Your task to perform on an android device: What's on my calendar today? Image 0: 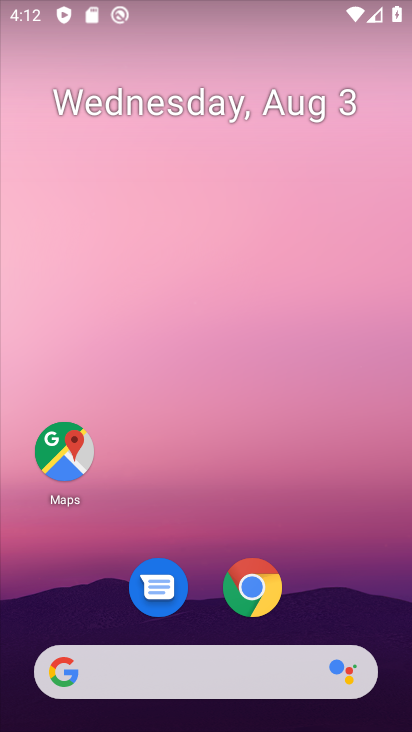
Step 0: drag from (69, 661) to (245, 151)
Your task to perform on an android device: What's on my calendar today? Image 1: 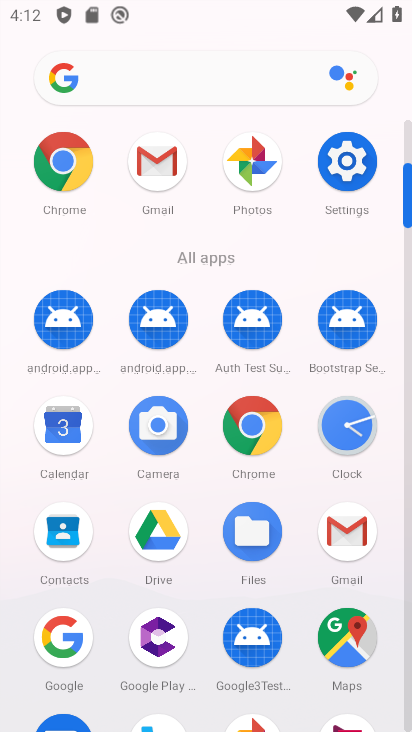
Step 1: click (69, 435)
Your task to perform on an android device: What's on my calendar today? Image 2: 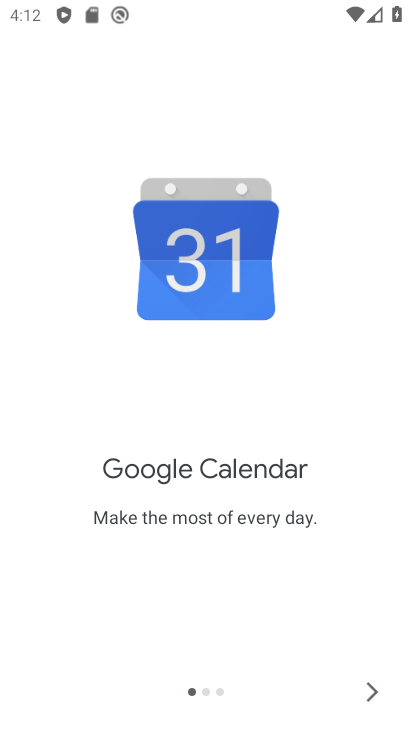
Step 2: click (376, 689)
Your task to perform on an android device: What's on my calendar today? Image 3: 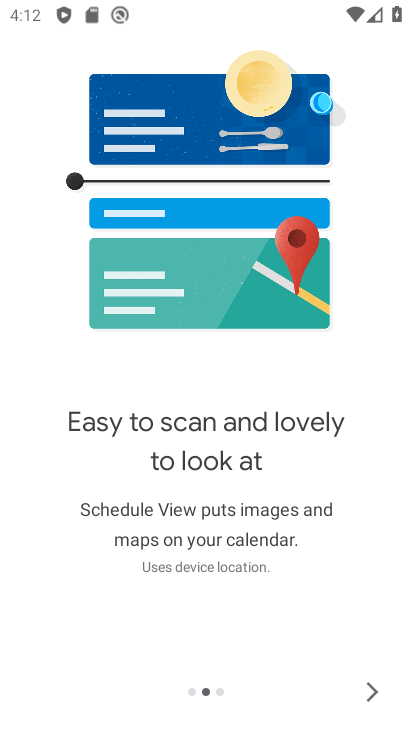
Step 3: click (371, 685)
Your task to perform on an android device: What's on my calendar today? Image 4: 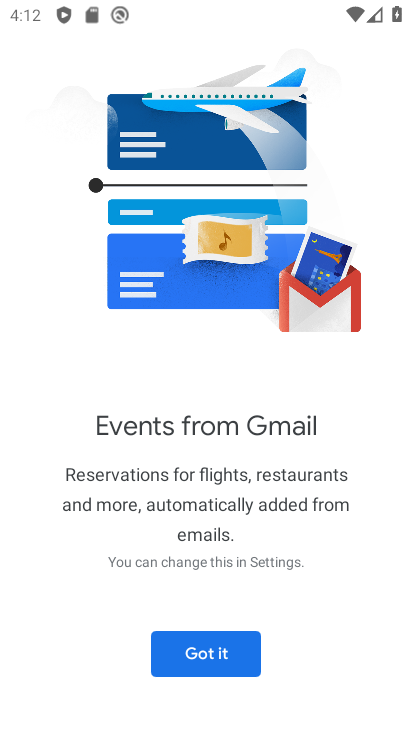
Step 4: click (212, 648)
Your task to perform on an android device: What's on my calendar today? Image 5: 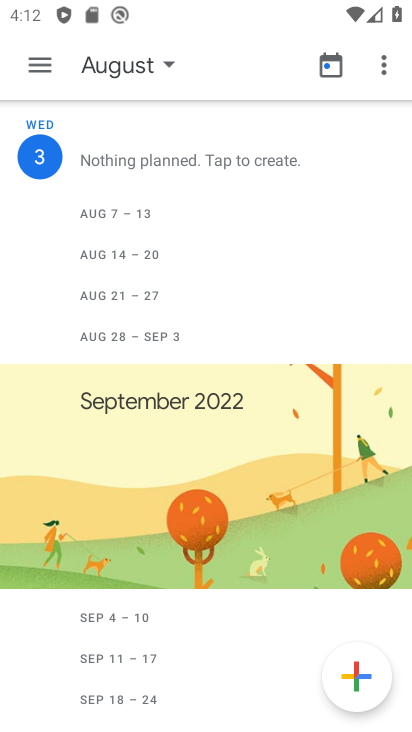
Step 5: click (147, 64)
Your task to perform on an android device: What's on my calendar today? Image 6: 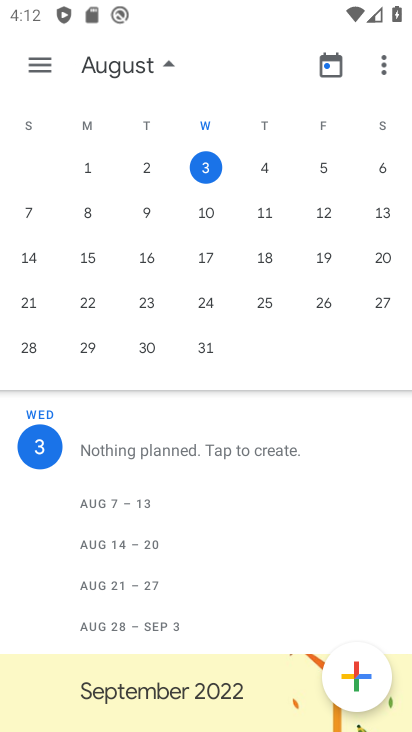
Step 6: task complete